Your task to perform on an android device: turn on airplane mode Image 0: 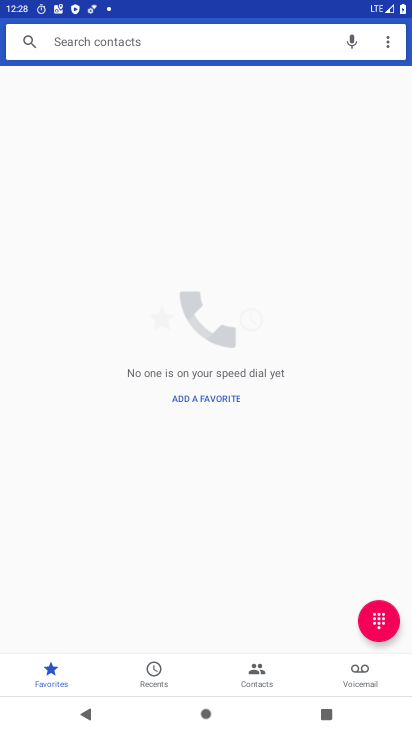
Step 0: press home button
Your task to perform on an android device: turn on airplane mode Image 1: 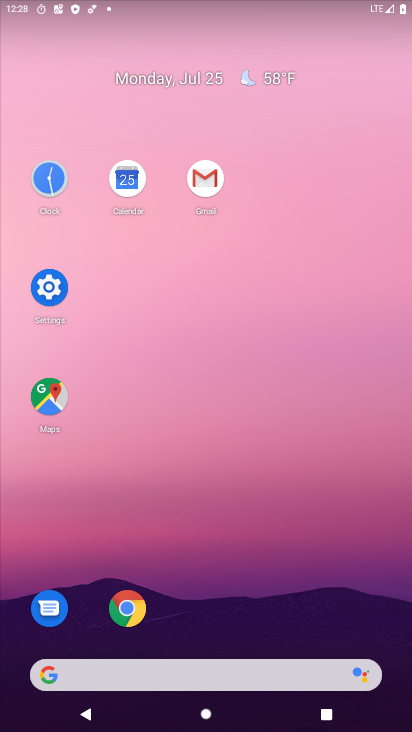
Step 1: click (55, 285)
Your task to perform on an android device: turn on airplane mode Image 2: 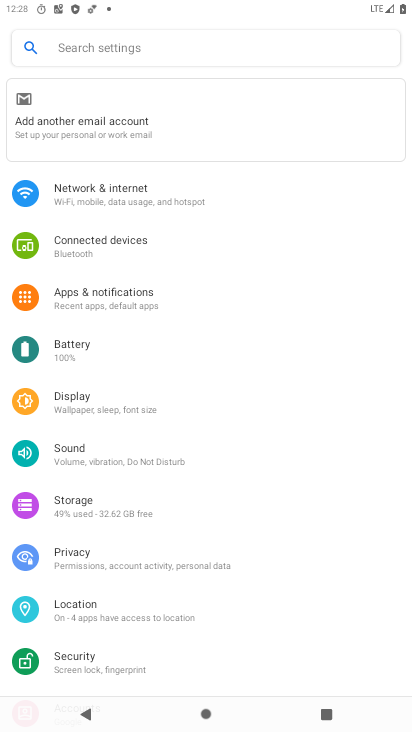
Step 2: click (186, 209)
Your task to perform on an android device: turn on airplane mode Image 3: 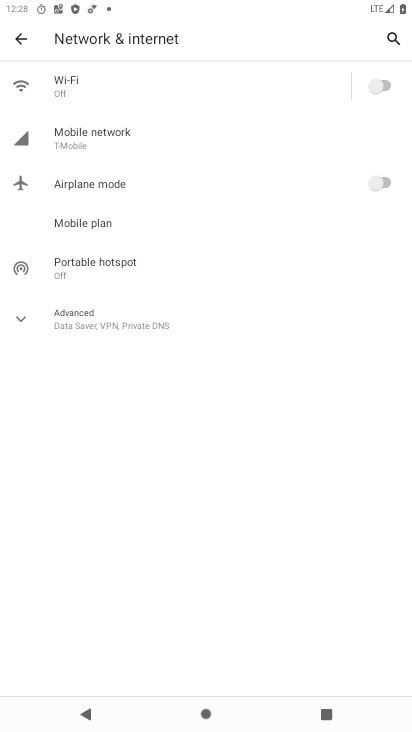
Step 3: click (379, 191)
Your task to perform on an android device: turn on airplane mode Image 4: 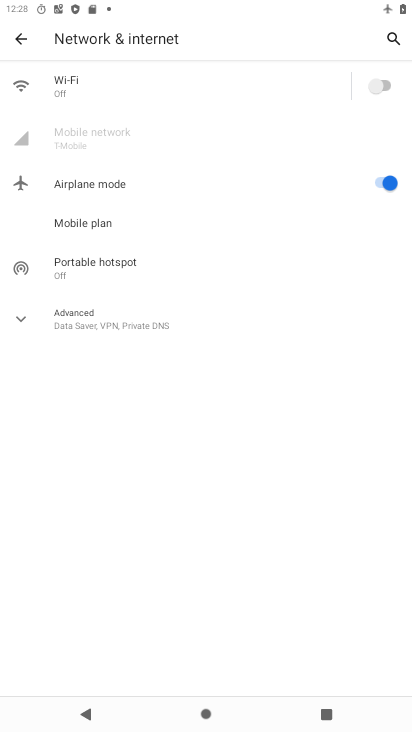
Step 4: task complete